Your task to perform on an android device: empty trash in google photos Image 0: 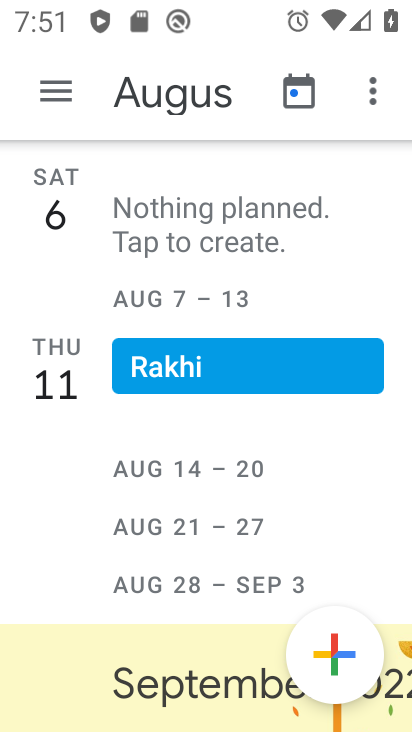
Step 0: press home button
Your task to perform on an android device: empty trash in google photos Image 1: 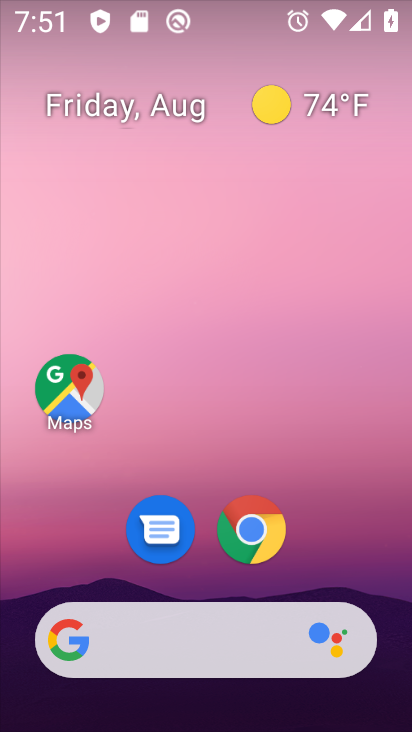
Step 1: drag from (224, 638) to (206, 120)
Your task to perform on an android device: empty trash in google photos Image 2: 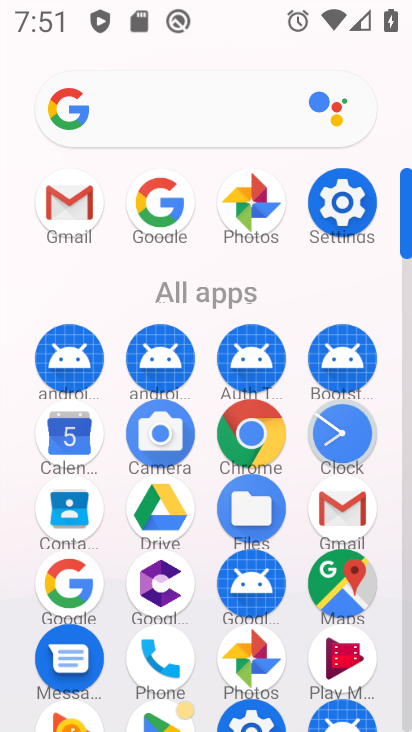
Step 2: click (251, 195)
Your task to perform on an android device: empty trash in google photos Image 3: 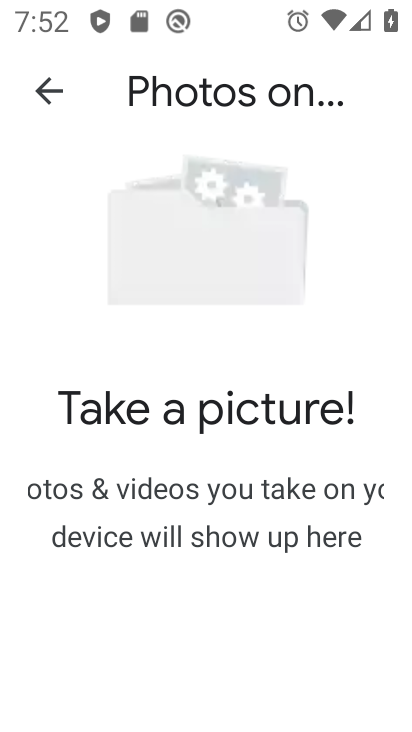
Step 3: press back button
Your task to perform on an android device: empty trash in google photos Image 4: 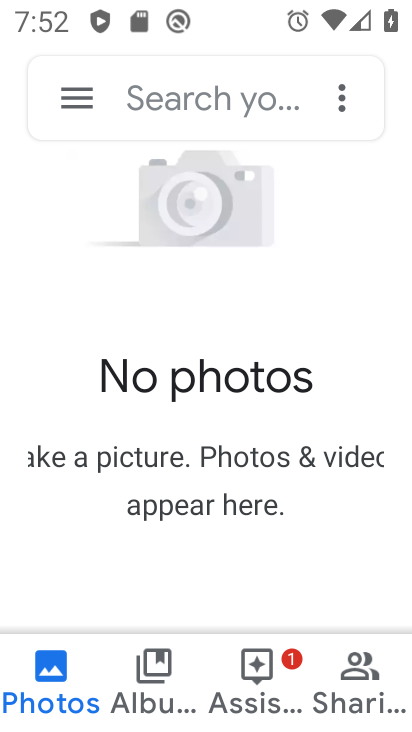
Step 4: click (67, 103)
Your task to perform on an android device: empty trash in google photos Image 5: 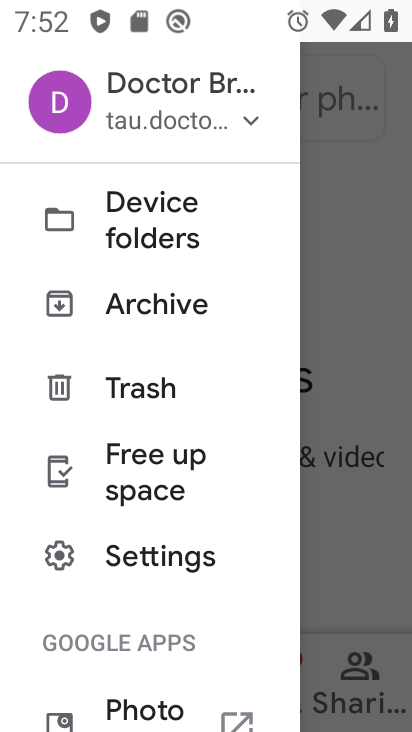
Step 5: click (162, 391)
Your task to perform on an android device: empty trash in google photos Image 6: 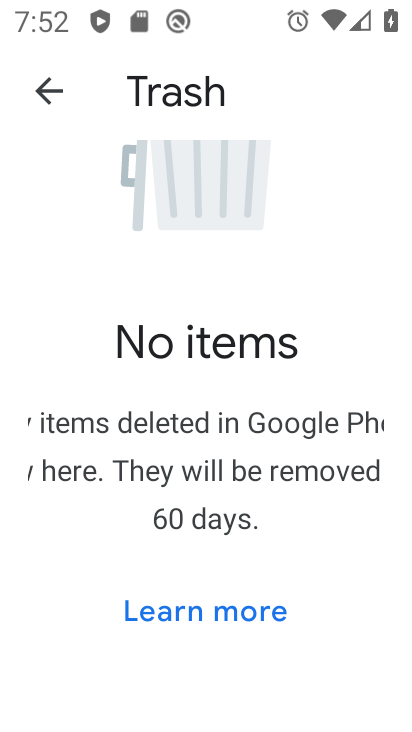
Step 6: task complete